Your task to perform on an android device: add a label to a message in the gmail app Image 0: 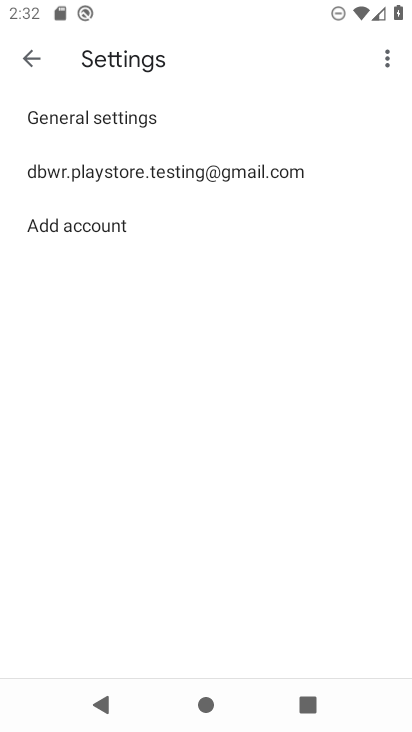
Step 0: press home button
Your task to perform on an android device: add a label to a message in the gmail app Image 1: 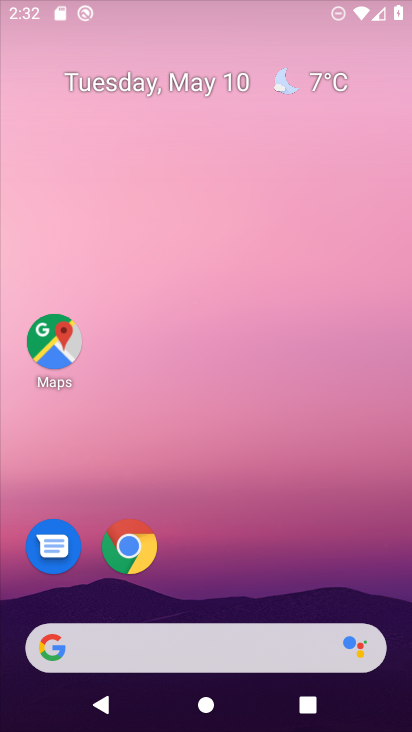
Step 1: drag from (350, 551) to (343, 79)
Your task to perform on an android device: add a label to a message in the gmail app Image 2: 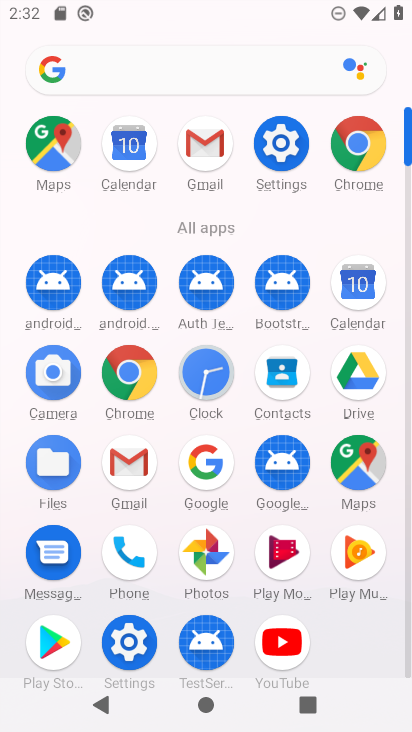
Step 2: click (215, 142)
Your task to perform on an android device: add a label to a message in the gmail app Image 3: 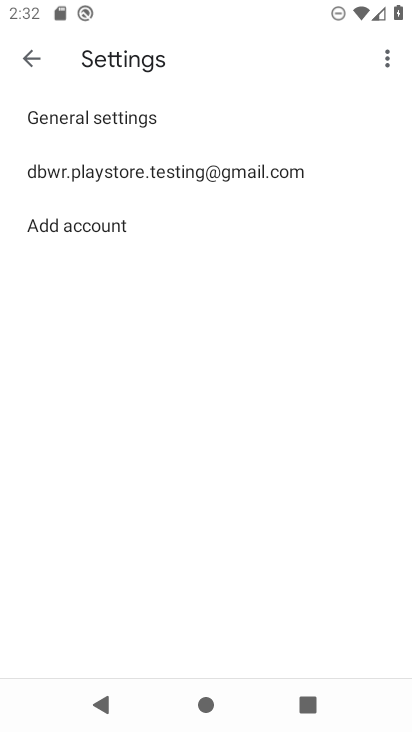
Step 3: task complete